Your task to perform on an android device: open app "Lyft - Rideshare, Bikes, Scooters & Transit" Image 0: 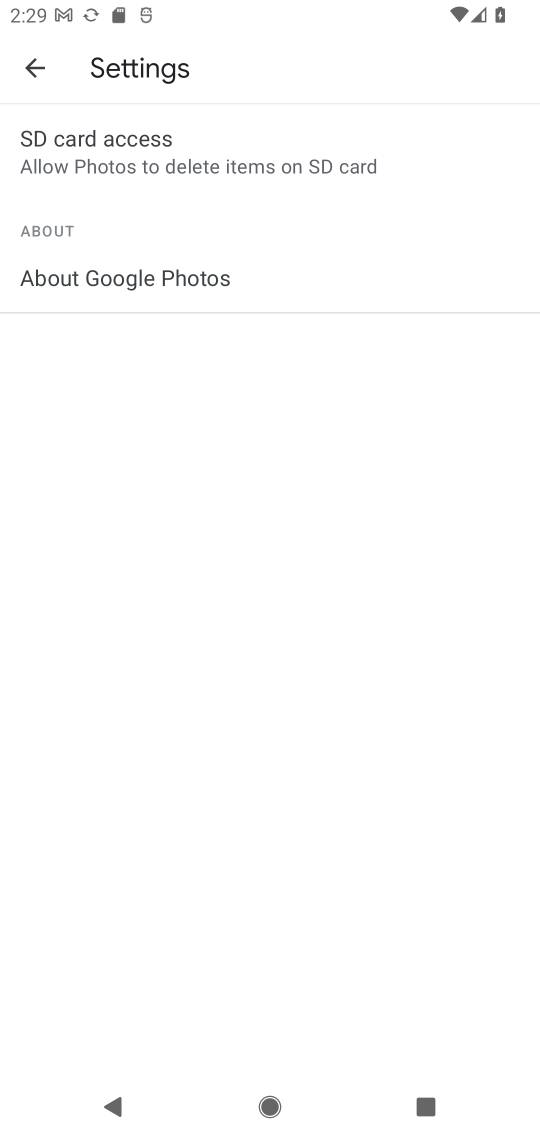
Step 0: press home button
Your task to perform on an android device: open app "Lyft - Rideshare, Bikes, Scooters & Transit" Image 1: 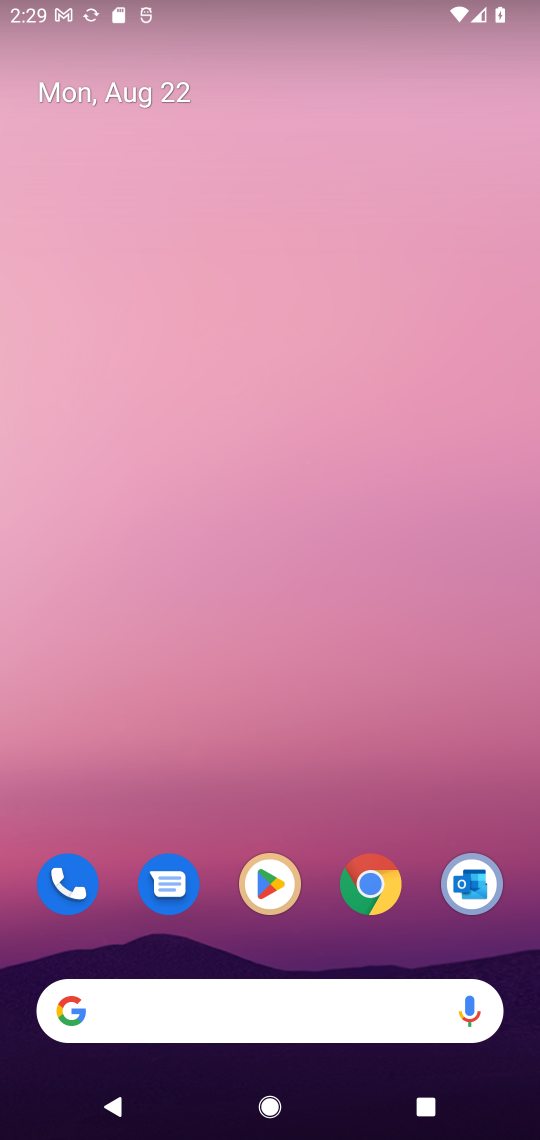
Step 1: click (264, 885)
Your task to perform on an android device: open app "Lyft - Rideshare, Bikes, Scooters & Transit" Image 2: 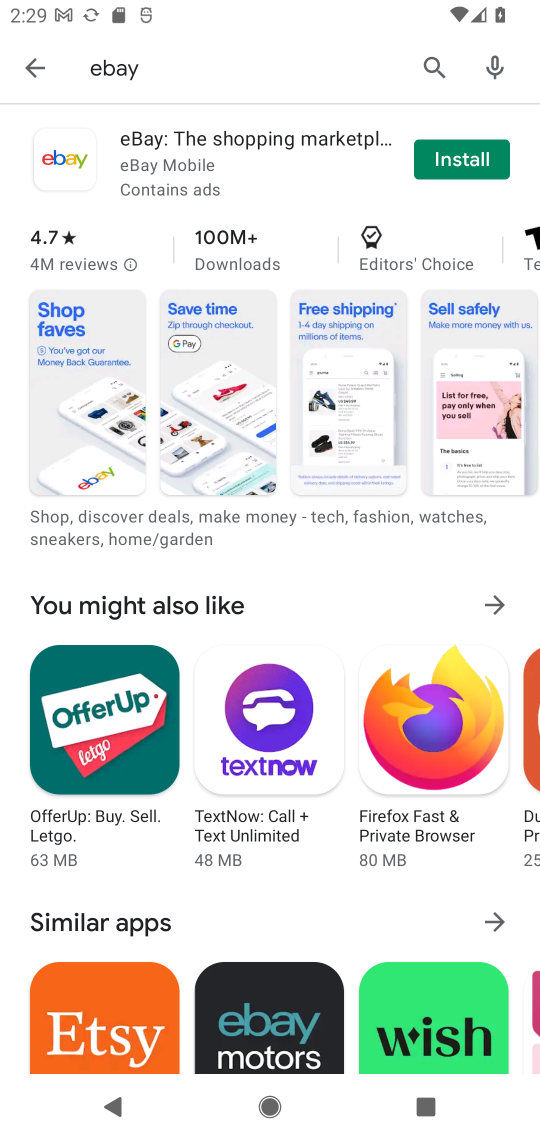
Step 2: click (433, 55)
Your task to perform on an android device: open app "Lyft - Rideshare, Bikes, Scooters & Transit" Image 3: 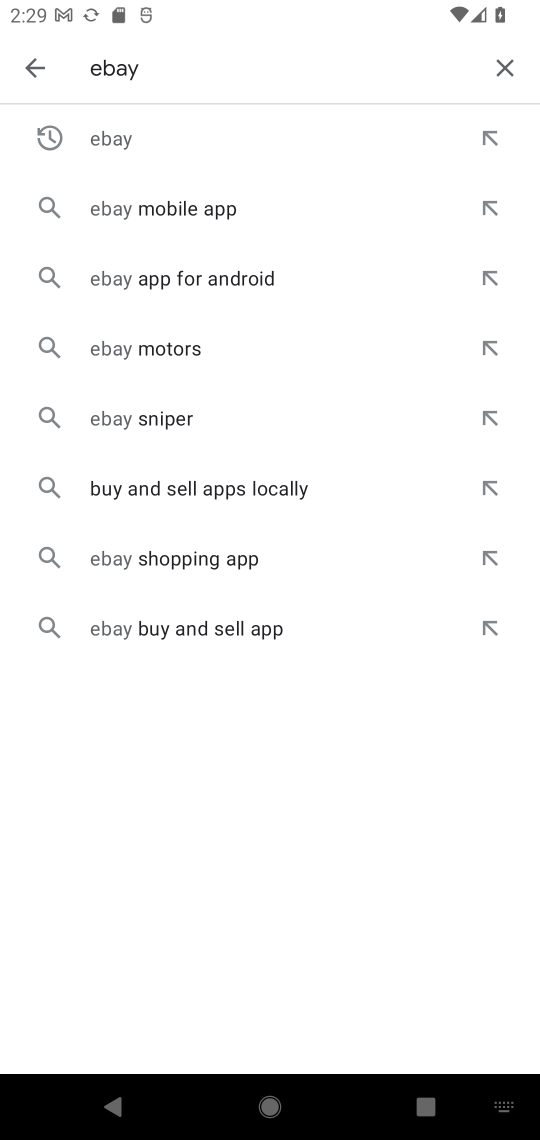
Step 3: click (502, 56)
Your task to perform on an android device: open app "Lyft - Rideshare, Bikes, Scooters & Transit" Image 4: 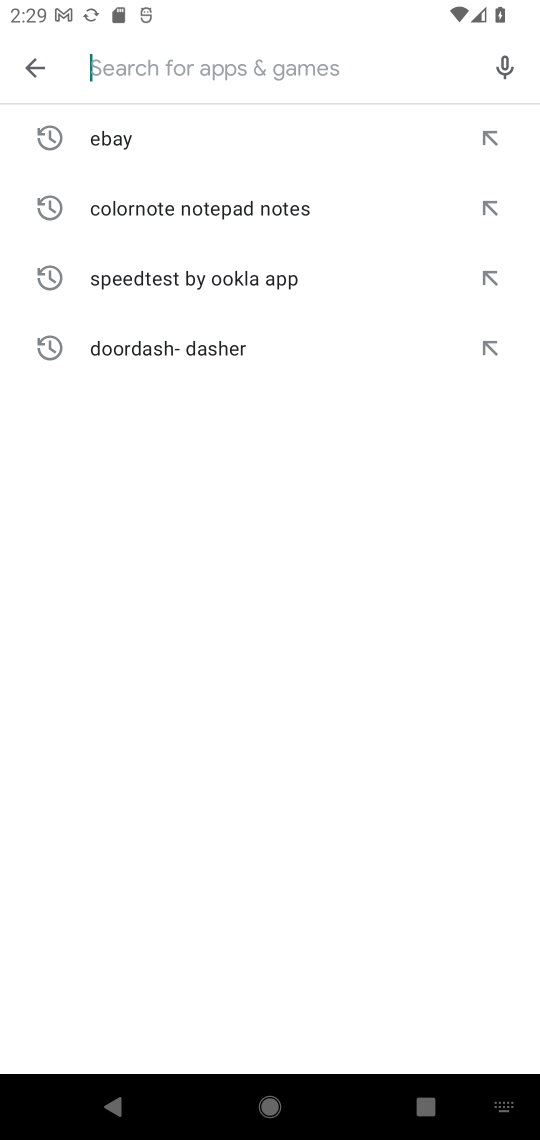
Step 4: type "lyft"
Your task to perform on an android device: open app "Lyft - Rideshare, Bikes, Scooters & Transit" Image 5: 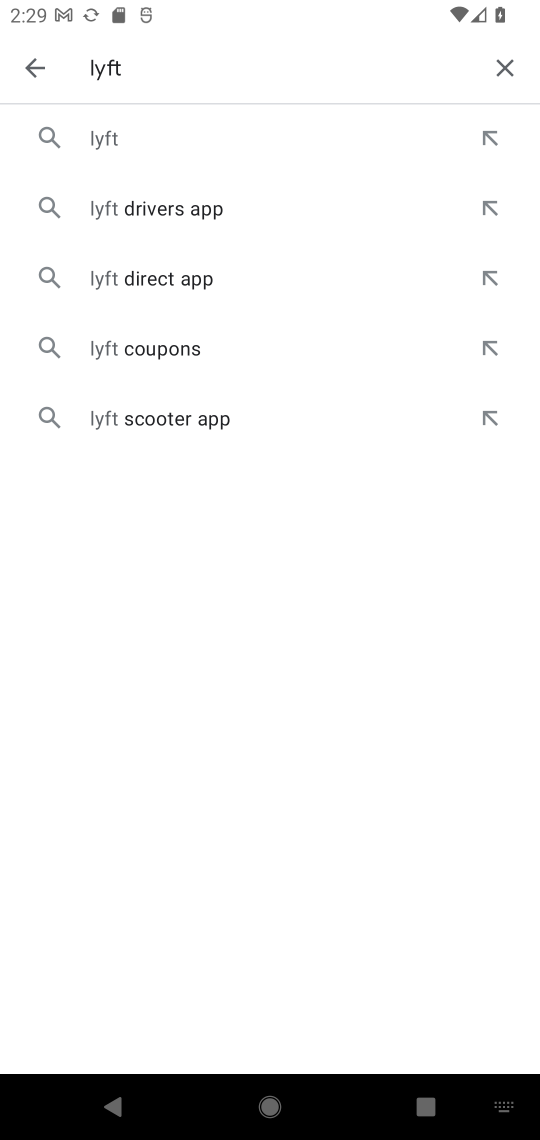
Step 5: click (105, 133)
Your task to perform on an android device: open app "Lyft - Rideshare, Bikes, Scooters & Transit" Image 6: 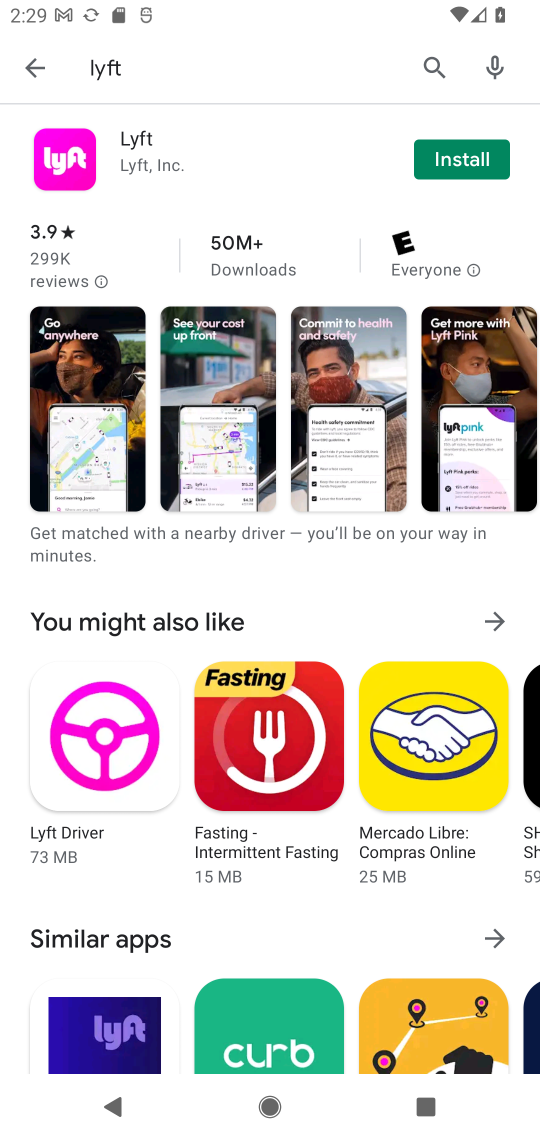
Step 6: task complete